Your task to perform on an android device: Go to internet settings Image 0: 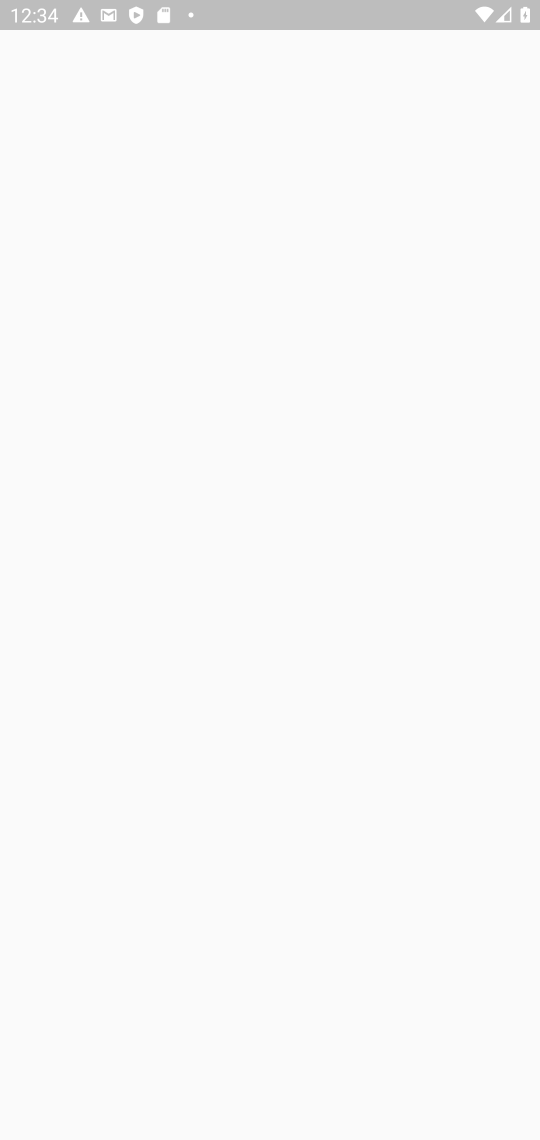
Step 0: press home button
Your task to perform on an android device: Go to internet settings Image 1: 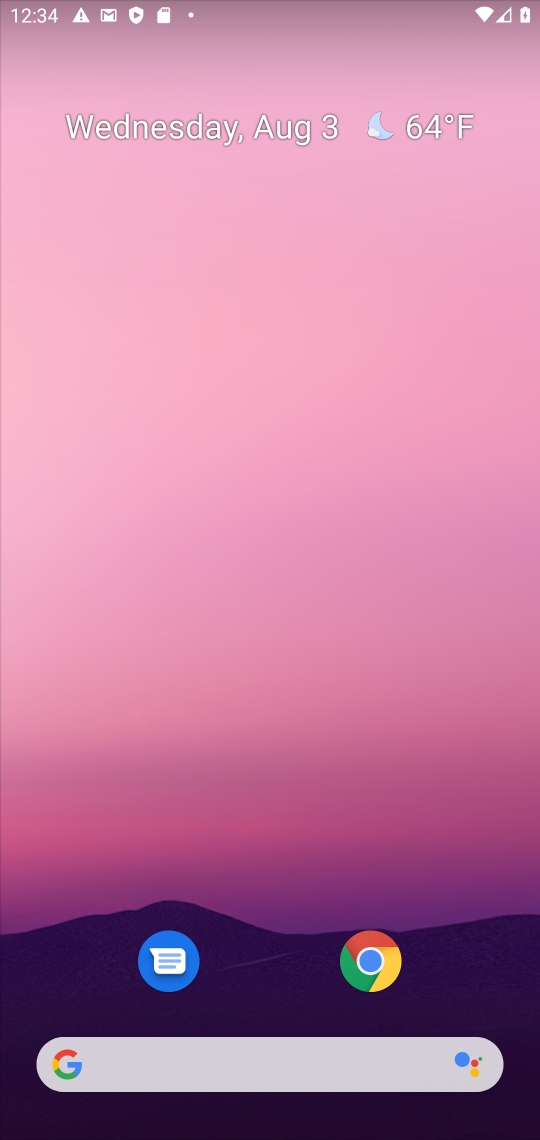
Step 1: drag from (284, 968) to (300, 161)
Your task to perform on an android device: Go to internet settings Image 2: 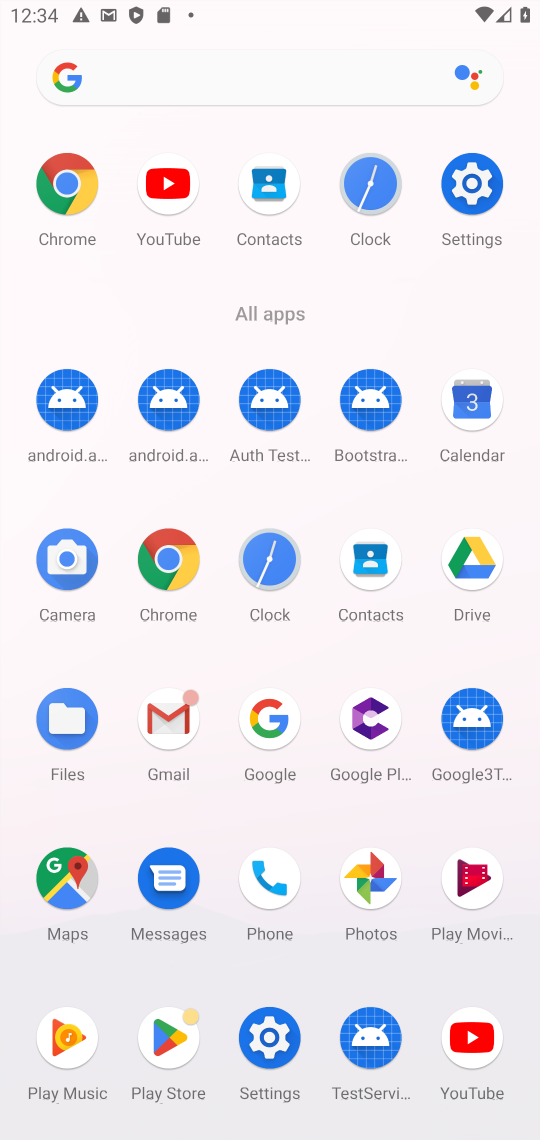
Step 2: click (481, 195)
Your task to perform on an android device: Go to internet settings Image 3: 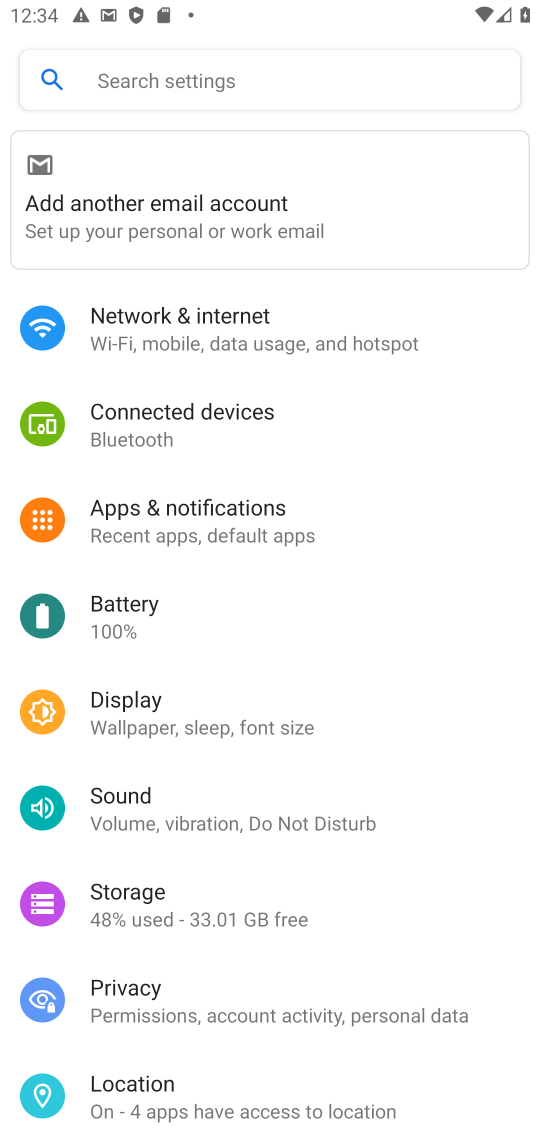
Step 3: click (215, 342)
Your task to perform on an android device: Go to internet settings Image 4: 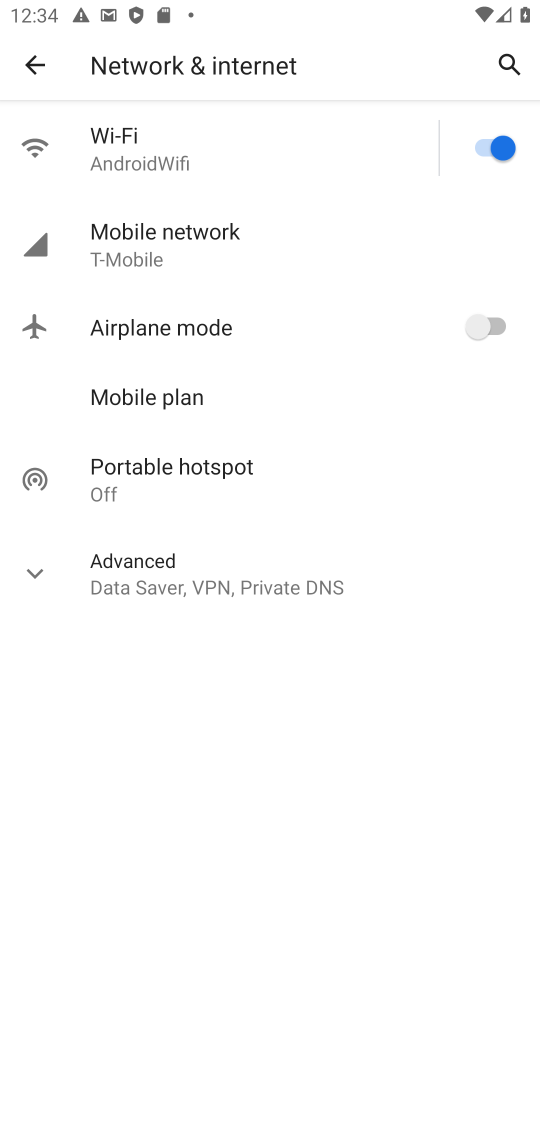
Step 4: click (35, 576)
Your task to perform on an android device: Go to internet settings Image 5: 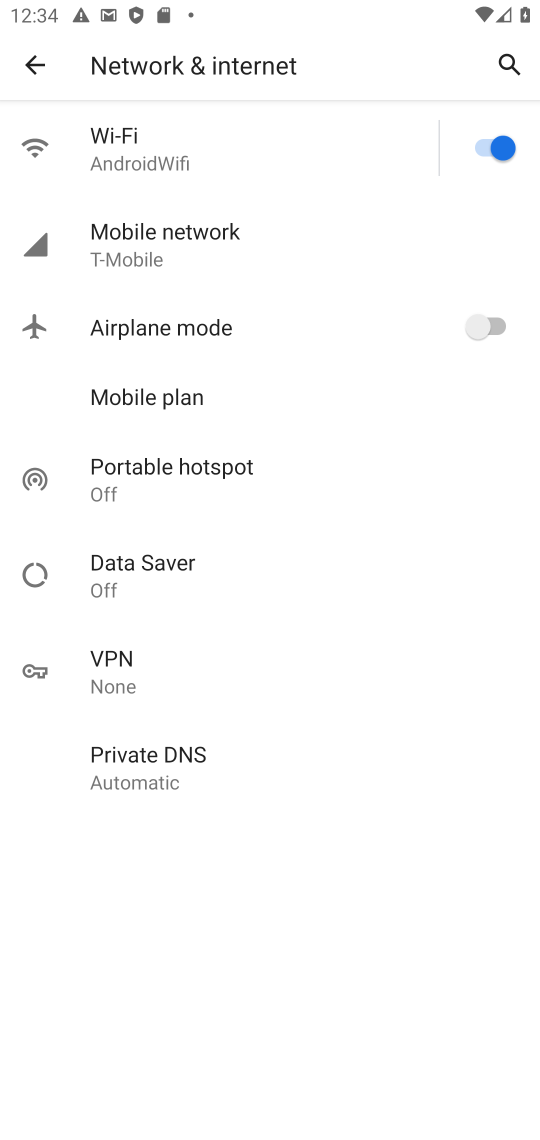
Step 5: task complete